Your task to perform on an android device: find which apps use the phone's location Image 0: 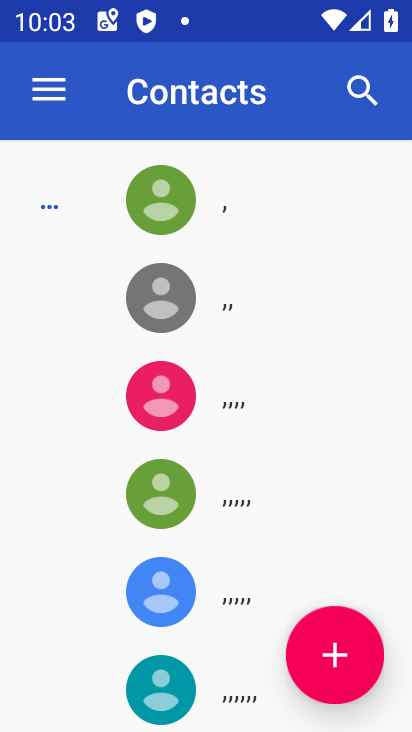
Step 0: drag from (187, 597) to (229, 294)
Your task to perform on an android device: find which apps use the phone's location Image 1: 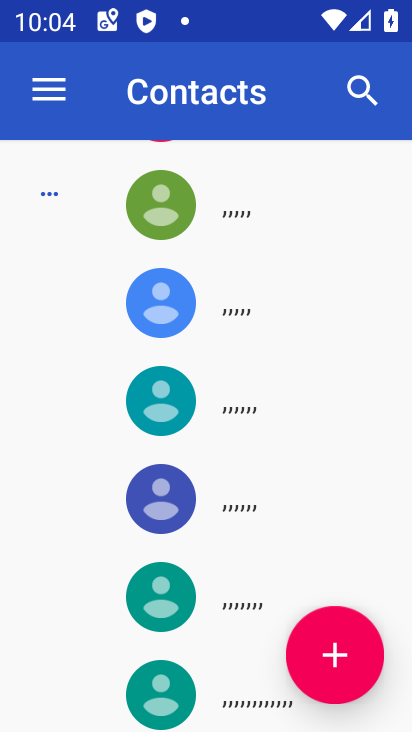
Step 1: press home button
Your task to perform on an android device: find which apps use the phone's location Image 2: 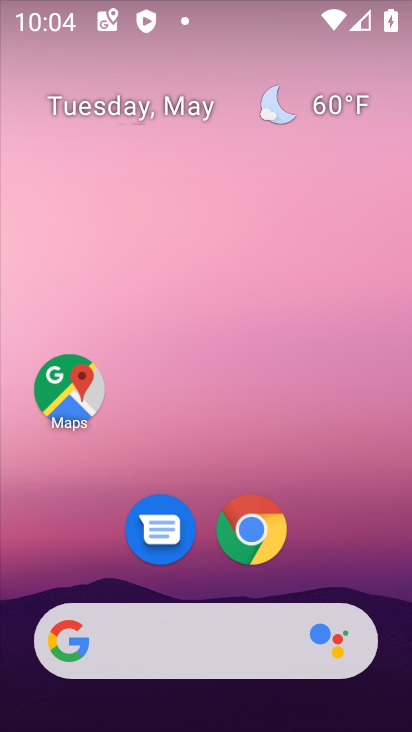
Step 2: drag from (207, 555) to (248, 224)
Your task to perform on an android device: find which apps use the phone's location Image 3: 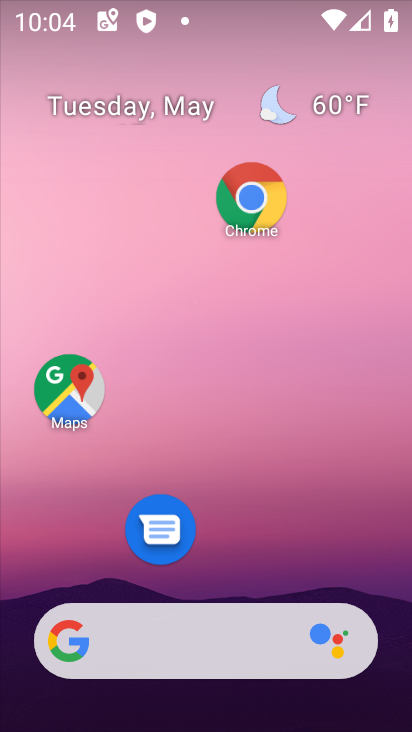
Step 3: drag from (186, 498) to (203, 297)
Your task to perform on an android device: find which apps use the phone's location Image 4: 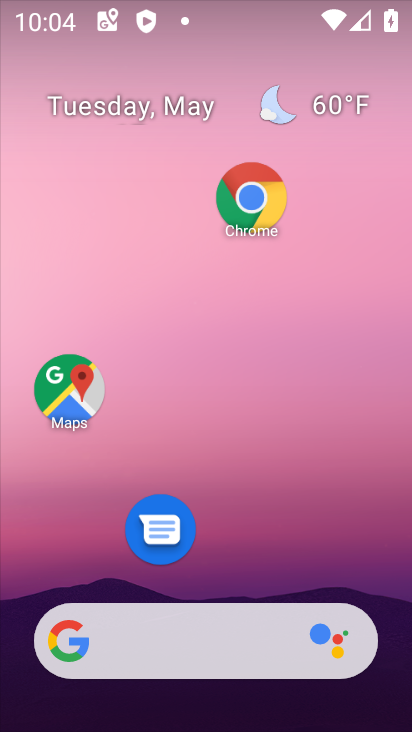
Step 4: drag from (194, 523) to (153, 200)
Your task to perform on an android device: find which apps use the phone's location Image 5: 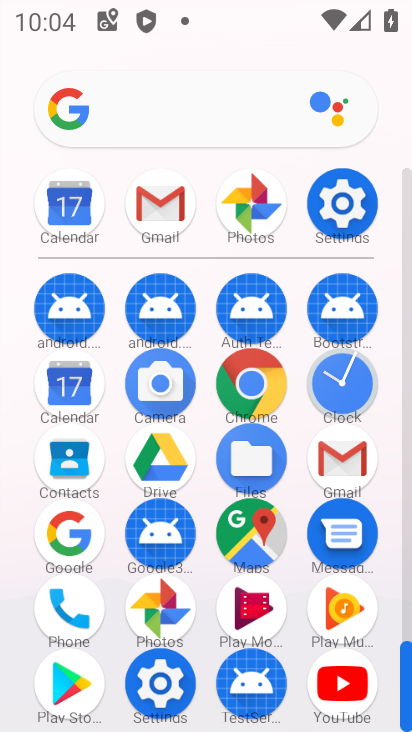
Step 5: click (340, 203)
Your task to perform on an android device: find which apps use the phone's location Image 6: 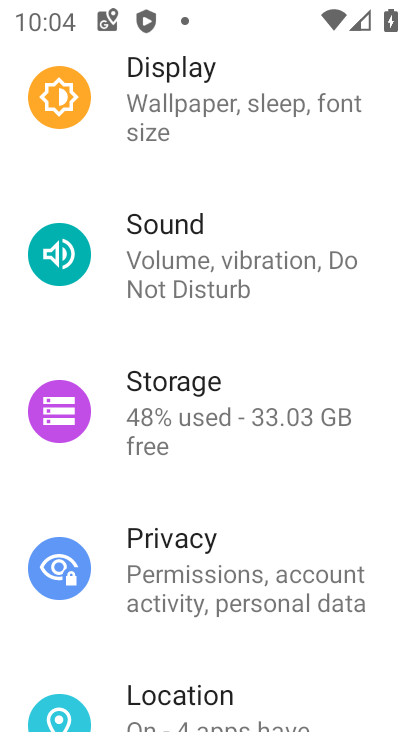
Step 6: click (171, 700)
Your task to perform on an android device: find which apps use the phone's location Image 7: 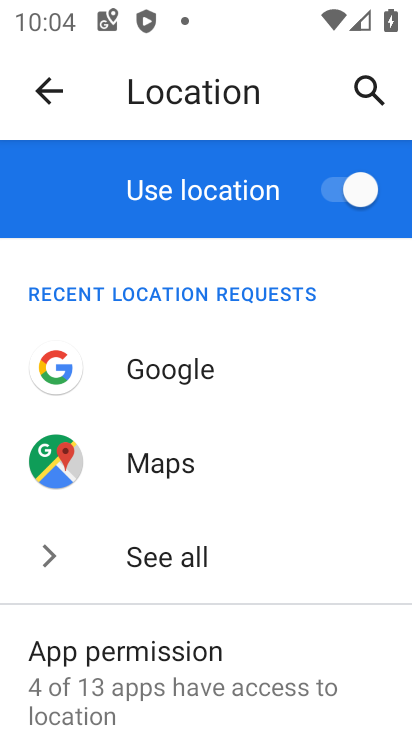
Step 7: click (206, 657)
Your task to perform on an android device: find which apps use the phone's location Image 8: 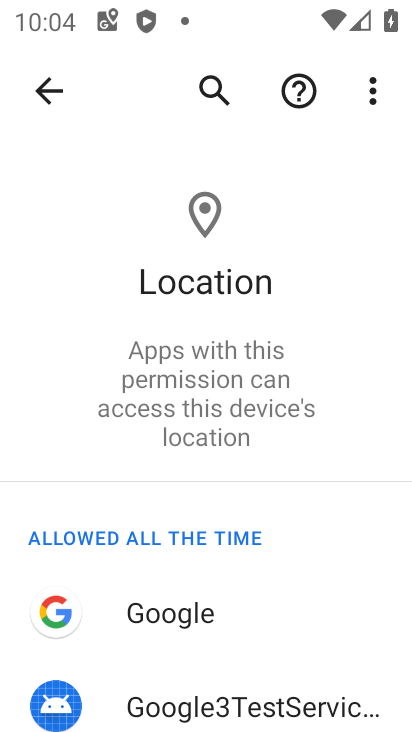
Step 8: task complete